Your task to perform on an android device: see tabs open on other devices in the chrome app Image 0: 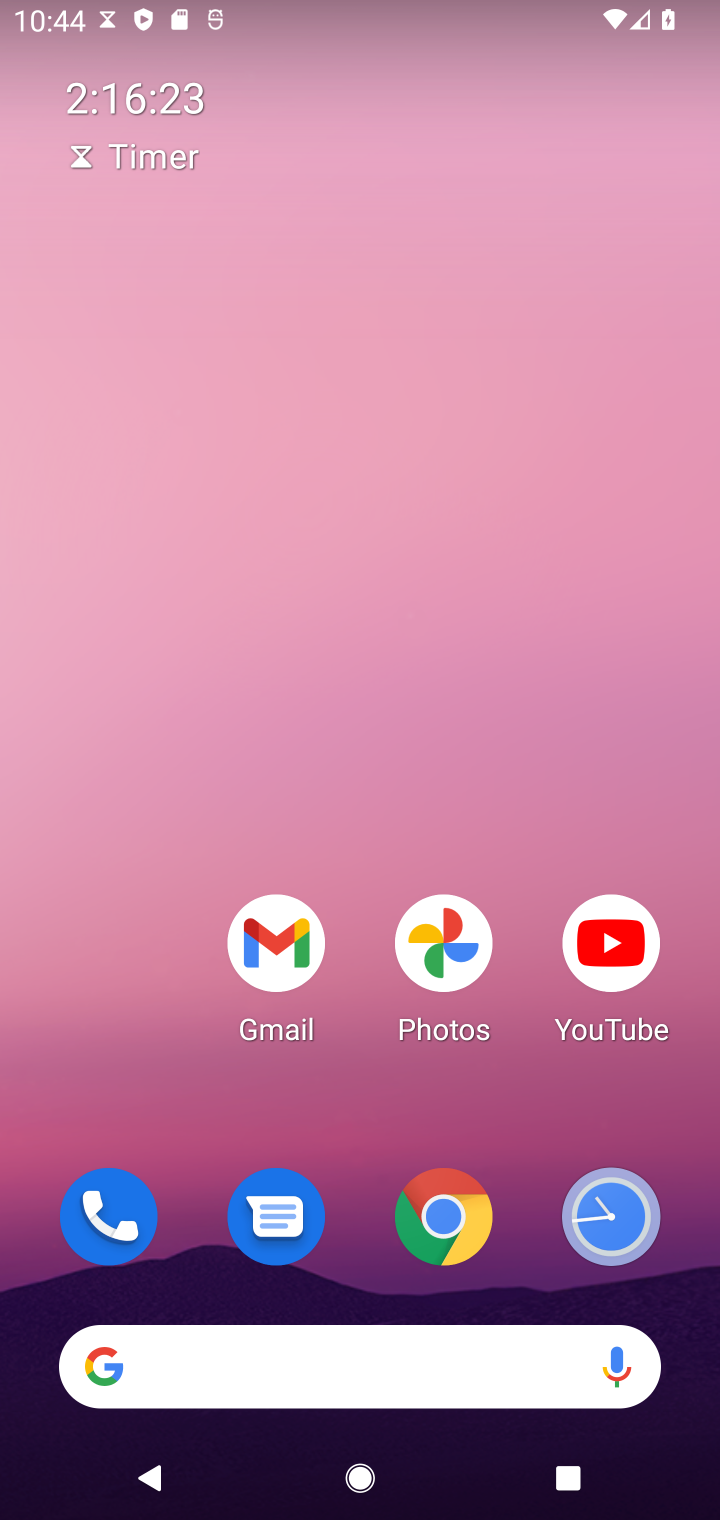
Step 0: click (450, 1203)
Your task to perform on an android device: see tabs open on other devices in the chrome app Image 1: 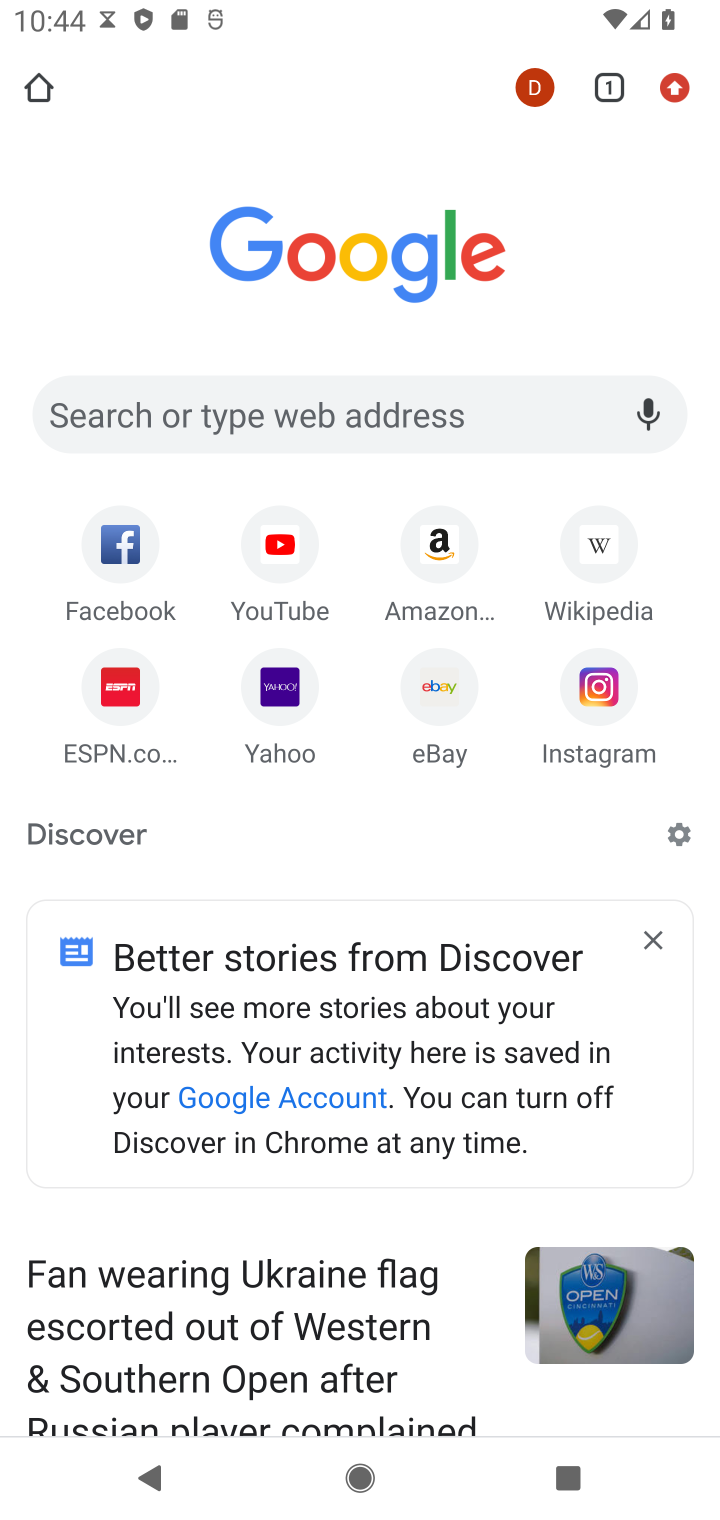
Step 1: task complete